Your task to perform on an android device: Show me popular games on the Play Store Image 0: 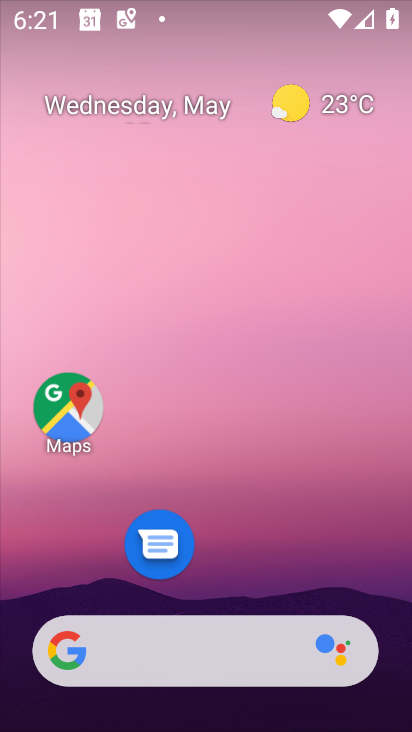
Step 0: drag from (293, 570) to (253, 86)
Your task to perform on an android device: Show me popular games on the Play Store Image 1: 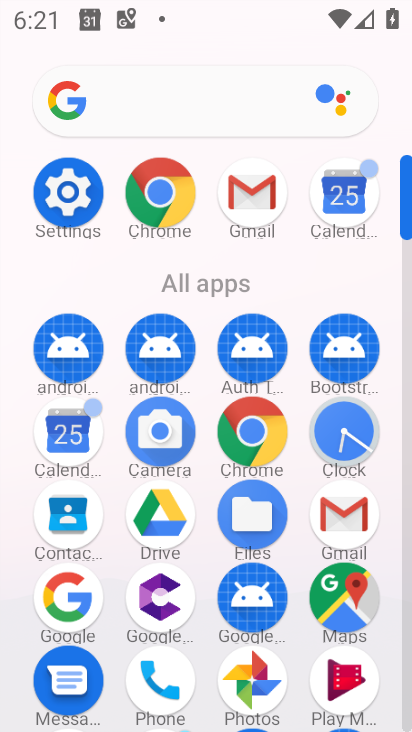
Step 1: drag from (199, 605) to (189, 183)
Your task to perform on an android device: Show me popular games on the Play Store Image 2: 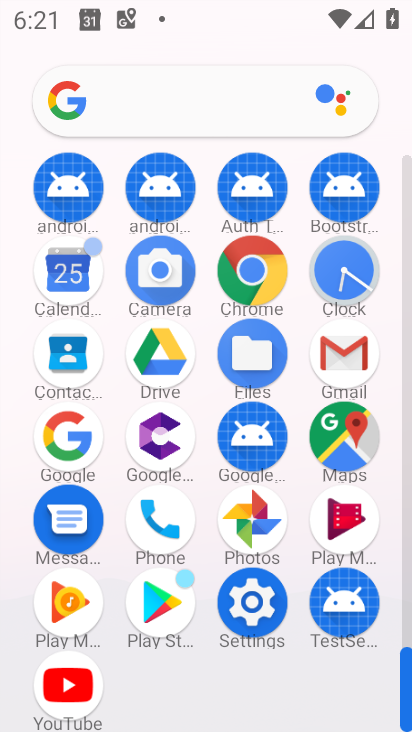
Step 2: click (158, 579)
Your task to perform on an android device: Show me popular games on the Play Store Image 3: 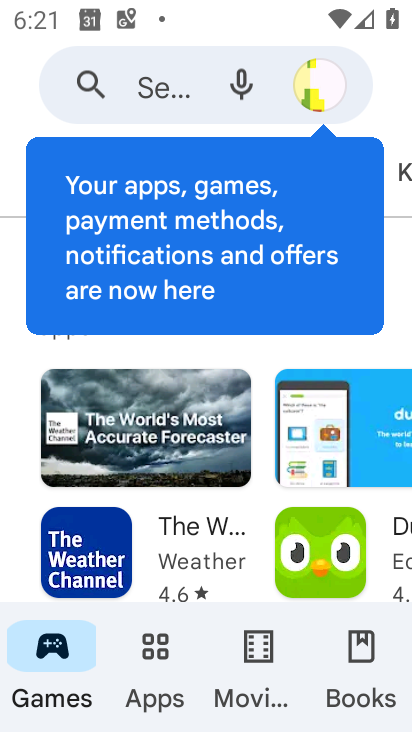
Step 3: click (51, 668)
Your task to perform on an android device: Show me popular games on the Play Store Image 4: 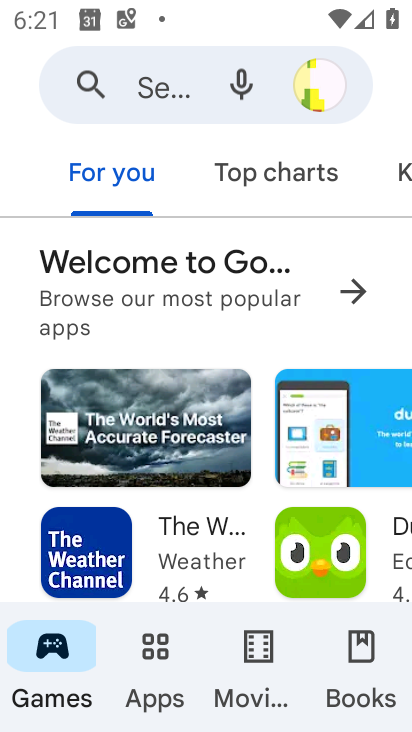
Step 4: task complete